Your task to perform on an android device: turn off picture-in-picture Image 0: 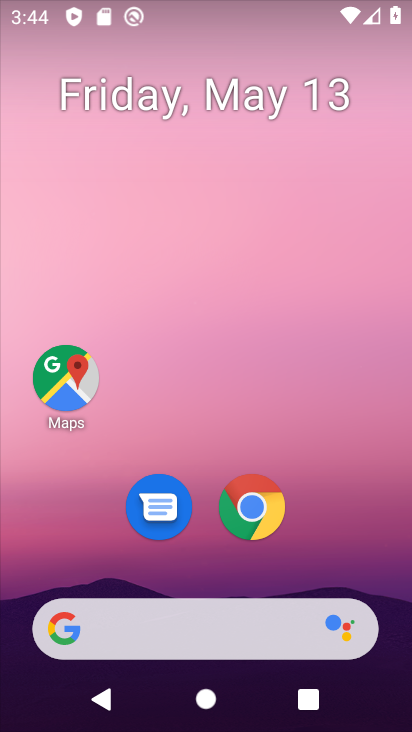
Step 0: click (261, 502)
Your task to perform on an android device: turn off picture-in-picture Image 1: 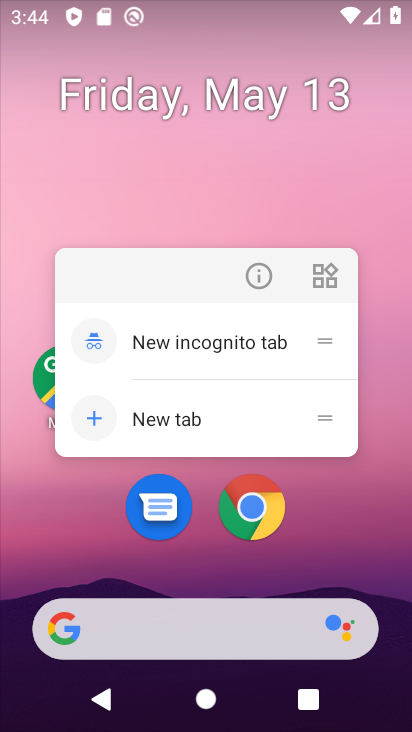
Step 1: click (252, 277)
Your task to perform on an android device: turn off picture-in-picture Image 2: 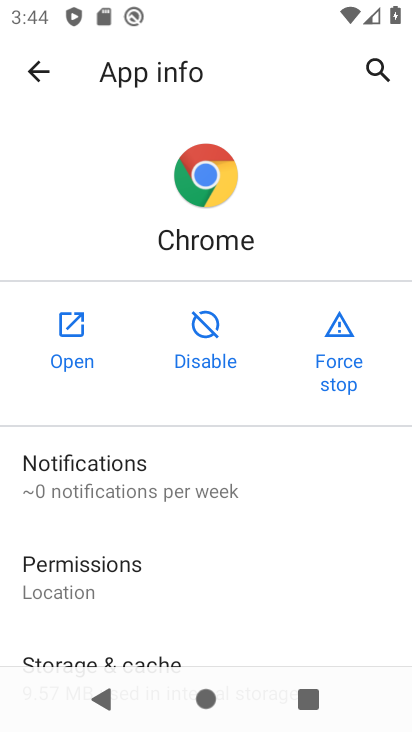
Step 2: drag from (267, 609) to (258, 157)
Your task to perform on an android device: turn off picture-in-picture Image 3: 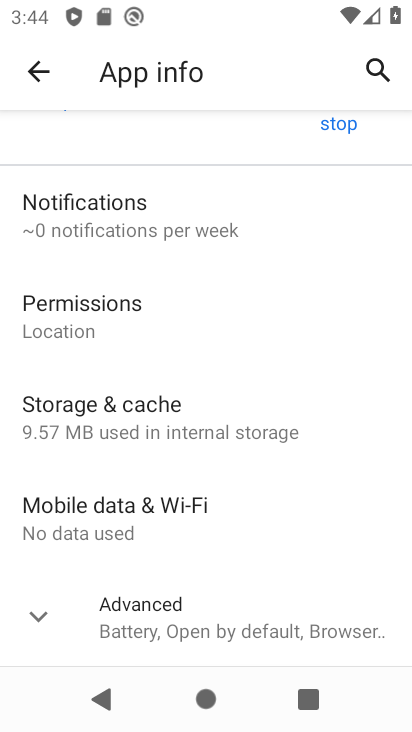
Step 3: click (186, 641)
Your task to perform on an android device: turn off picture-in-picture Image 4: 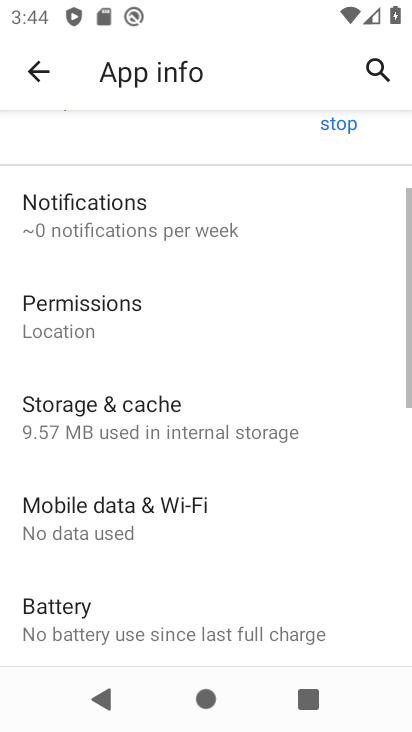
Step 4: drag from (222, 600) to (304, 138)
Your task to perform on an android device: turn off picture-in-picture Image 5: 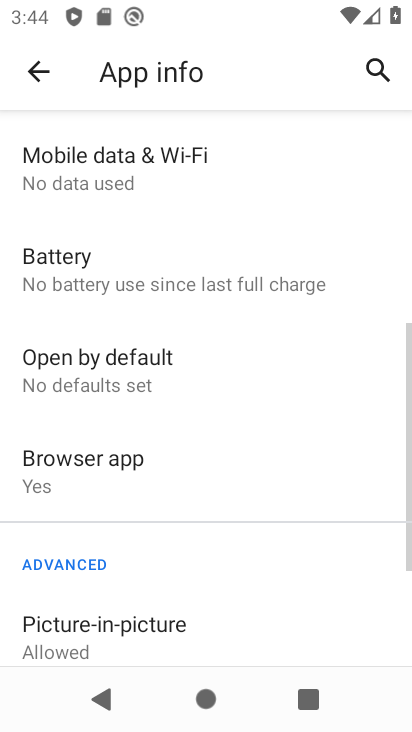
Step 5: drag from (194, 611) to (254, 227)
Your task to perform on an android device: turn off picture-in-picture Image 6: 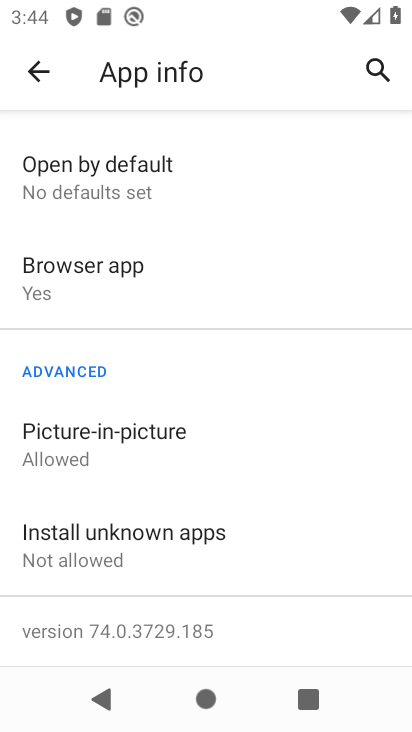
Step 6: click (121, 443)
Your task to perform on an android device: turn off picture-in-picture Image 7: 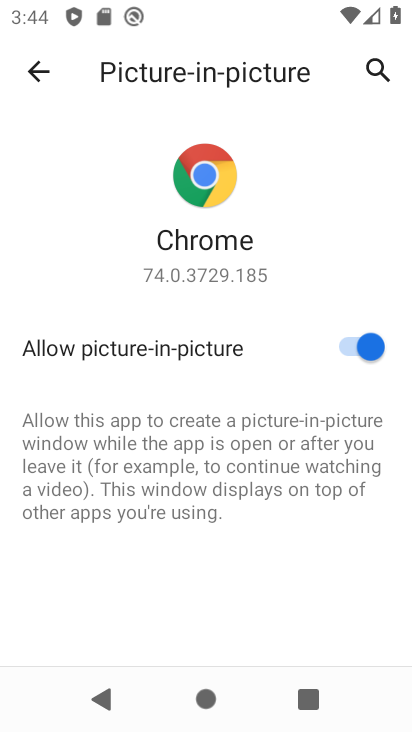
Step 7: click (360, 350)
Your task to perform on an android device: turn off picture-in-picture Image 8: 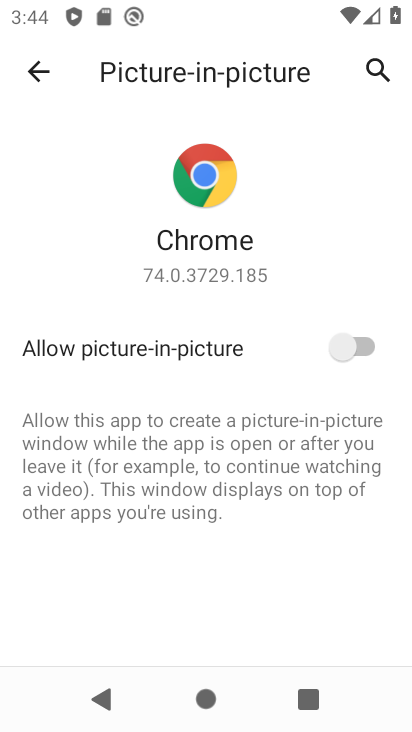
Step 8: task complete